Your task to perform on an android device: open app "Pandora - Music & Podcasts" Image 0: 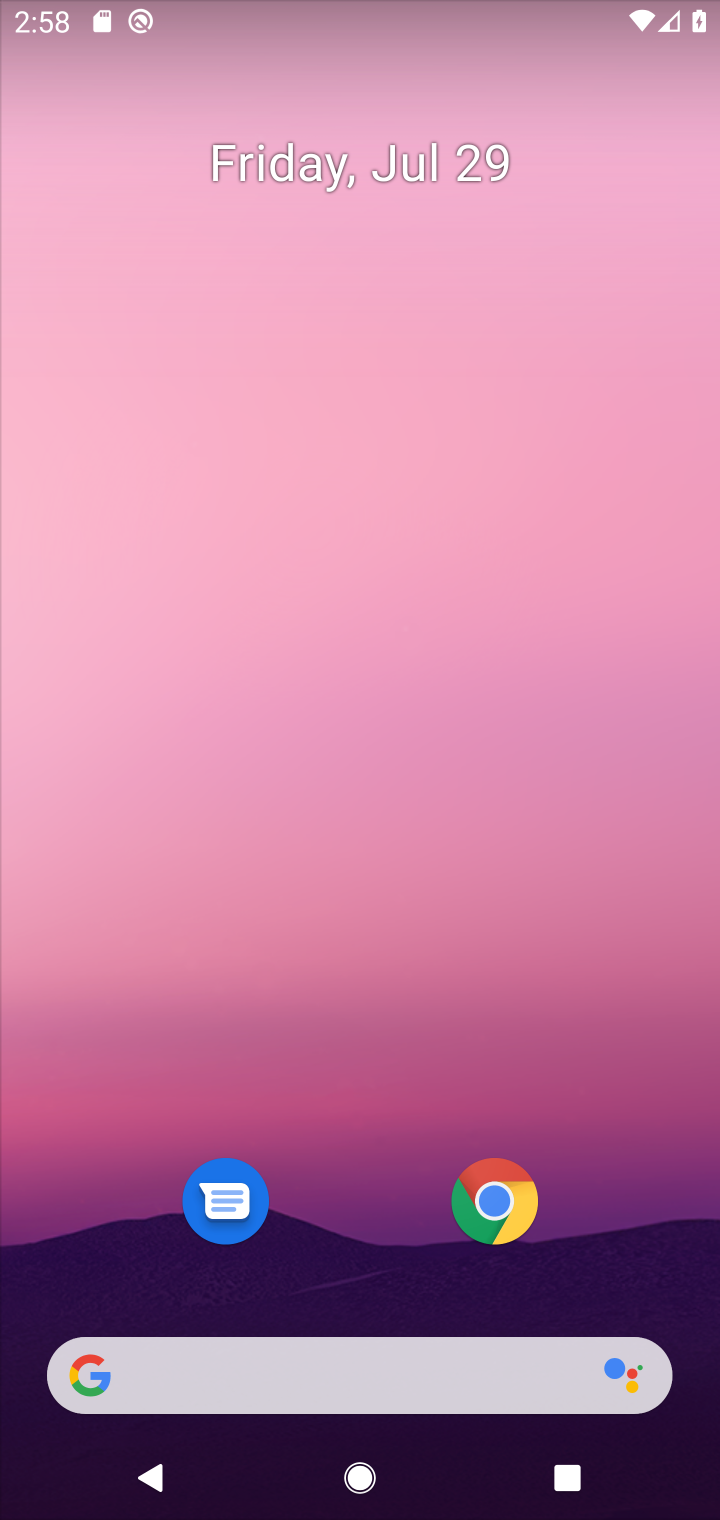
Step 0: drag from (435, 1284) to (337, 1066)
Your task to perform on an android device: open app "Pandora - Music & Podcasts" Image 1: 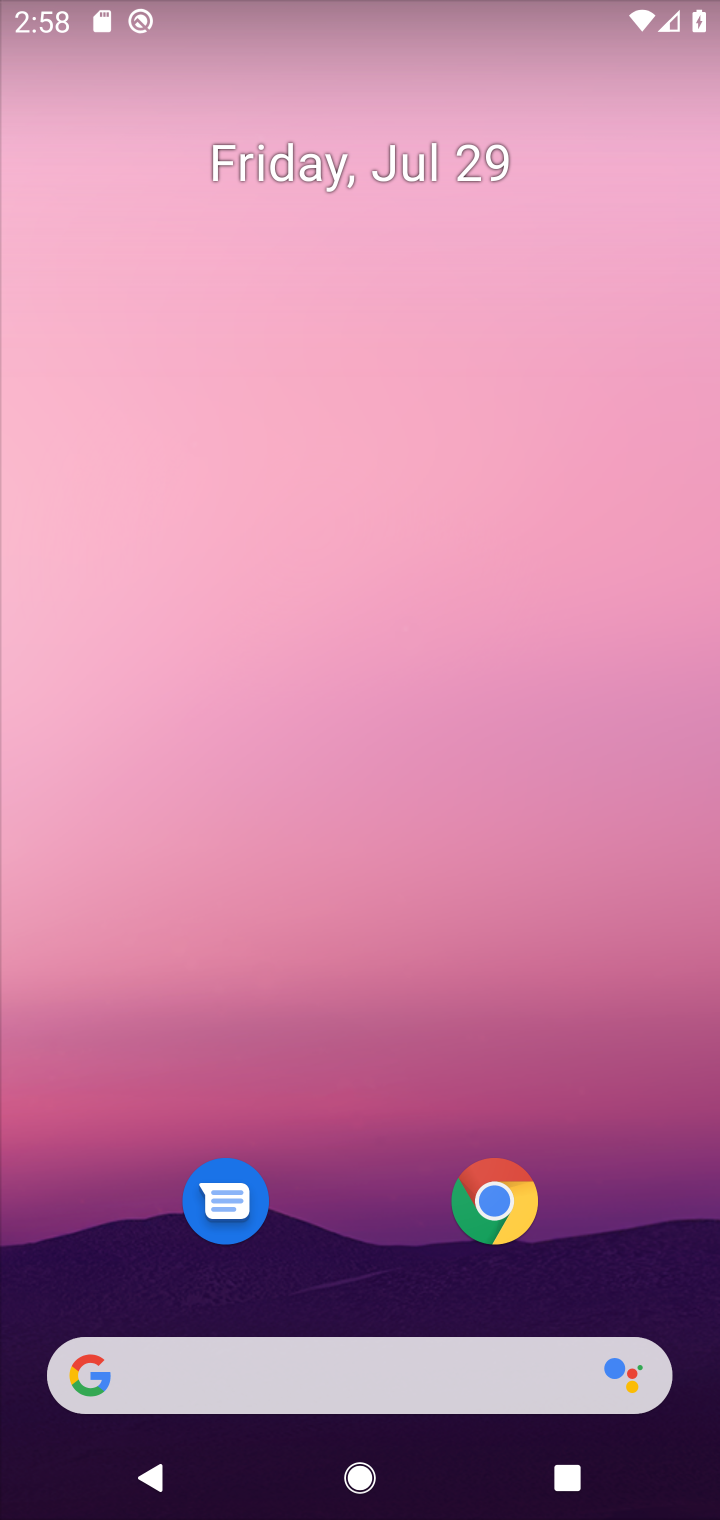
Step 1: drag from (404, 663) to (367, 246)
Your task to perform on an android device: open app "Pandora - Music & Podcasts" Image 2: 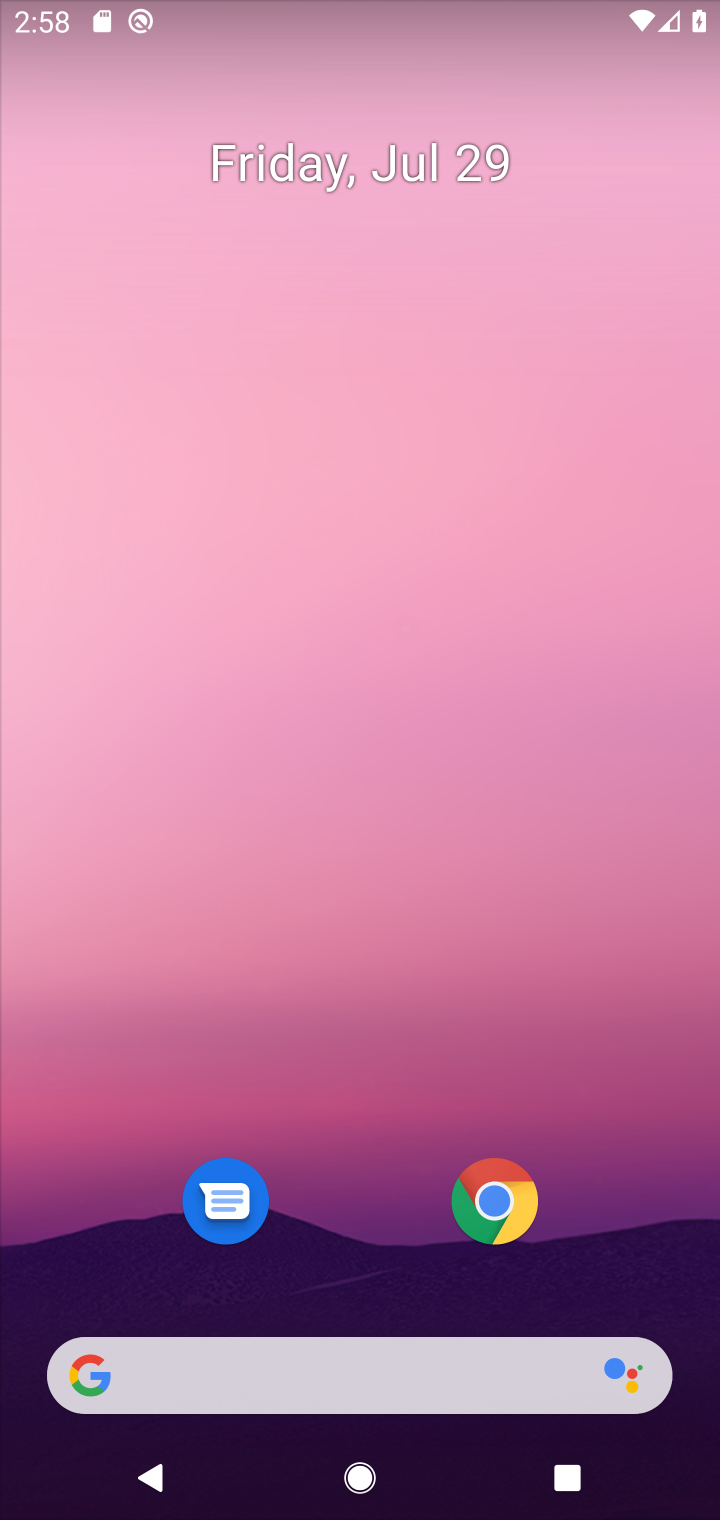
Step 2: drag from (553, 1082) to (335, 2)
Your task to perform on an android device: open app "Pandora - Music & Podcasts" Image 3: 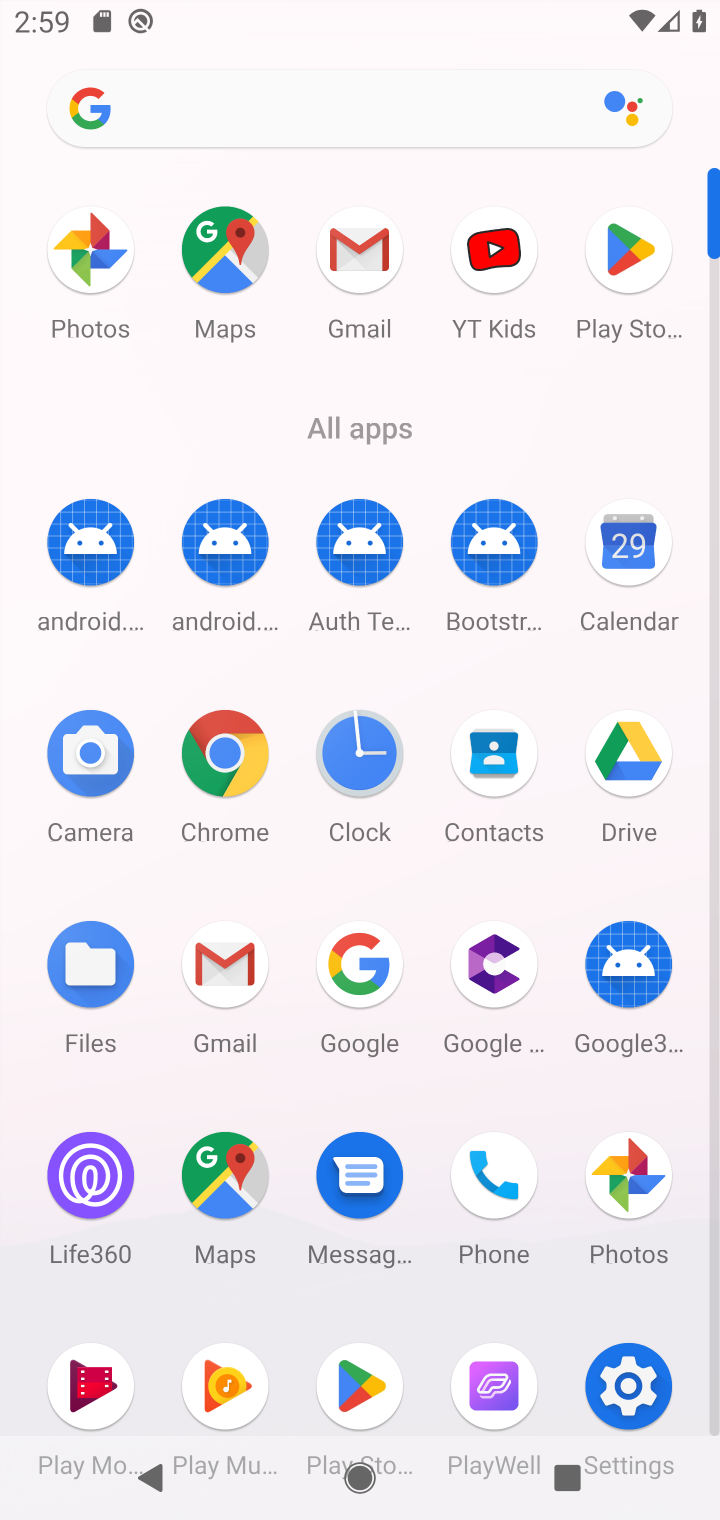
Step 3: click (650, 268)
Your task to perform on an android device: open app "Pandora - Music & Podcasts" Image 4: 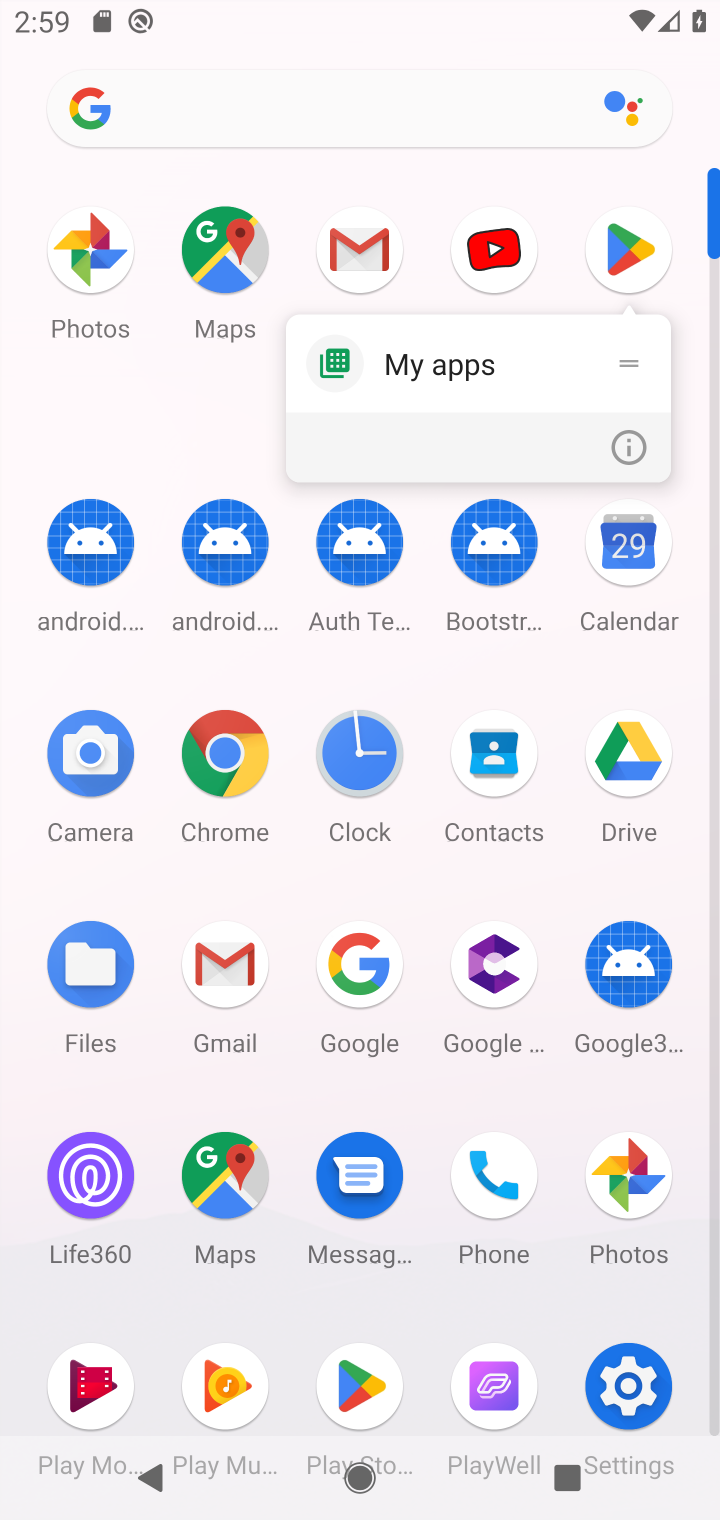
Step 4: click (649, 251)
Your task to perform on an android device: open app "Pandora - Music & Podcasts" Image 5: 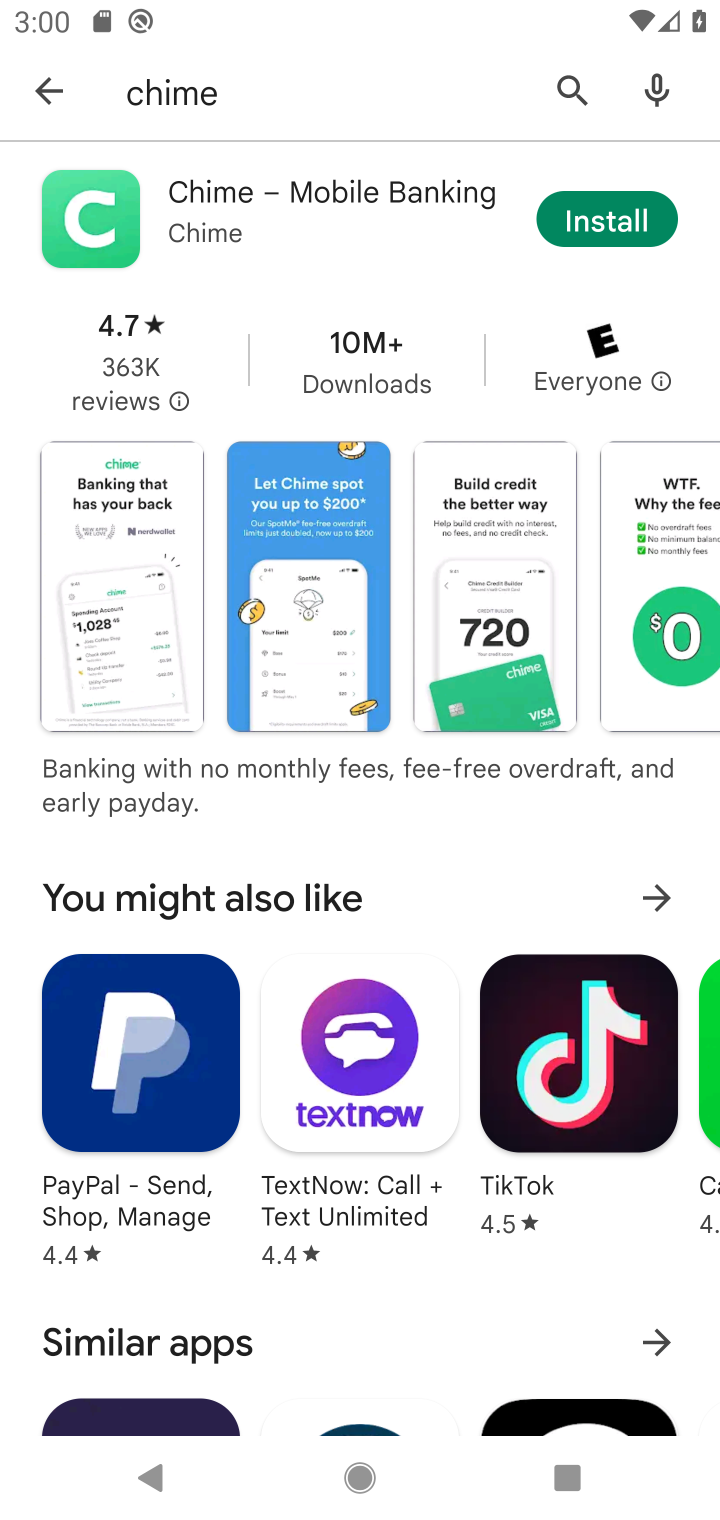
Step 5: click (587, 222)
Your task to perform on an android device: open app "Pandora - Music & Podcasts" Image 6: 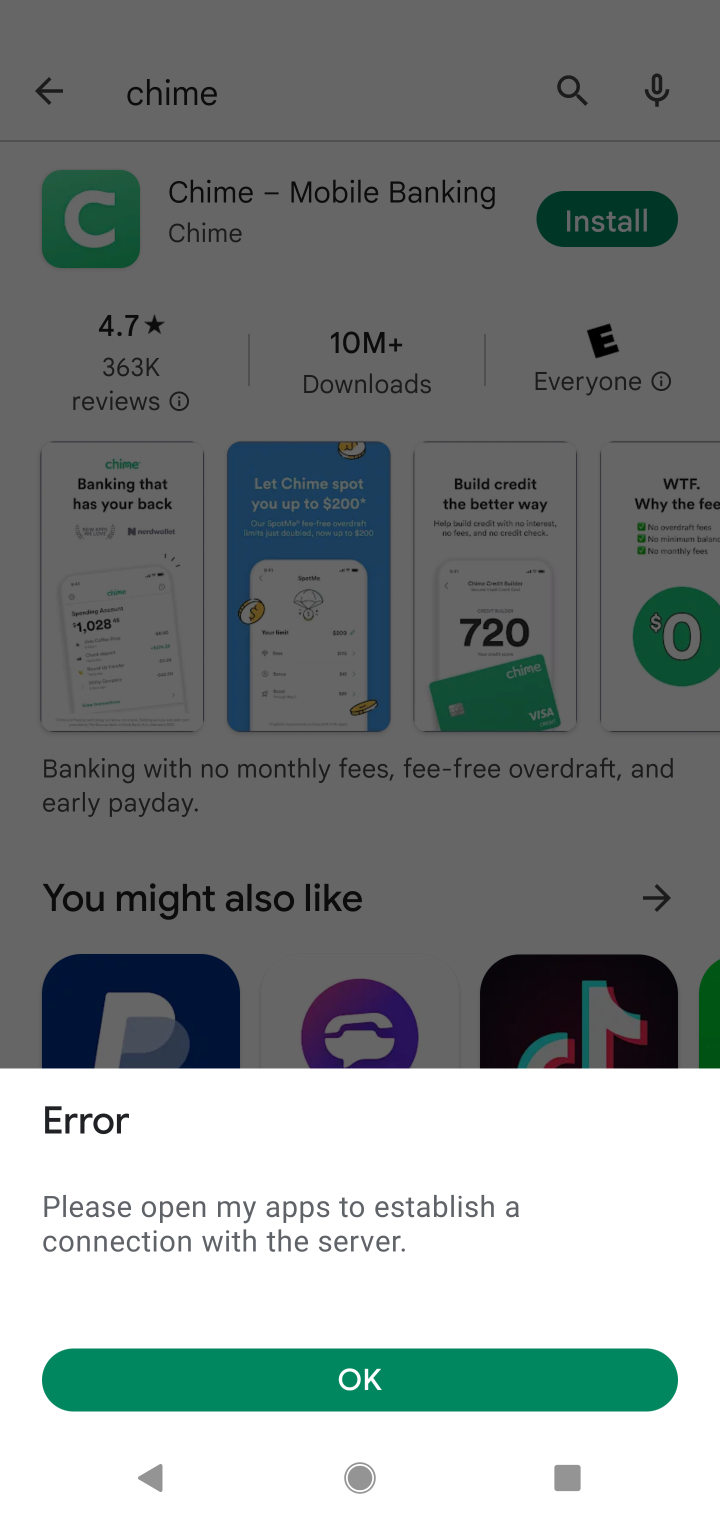
Step 6: click (517, 759)
Your task to perform on an android device: open app "Pandora - Music & Podcasts" Image 7: 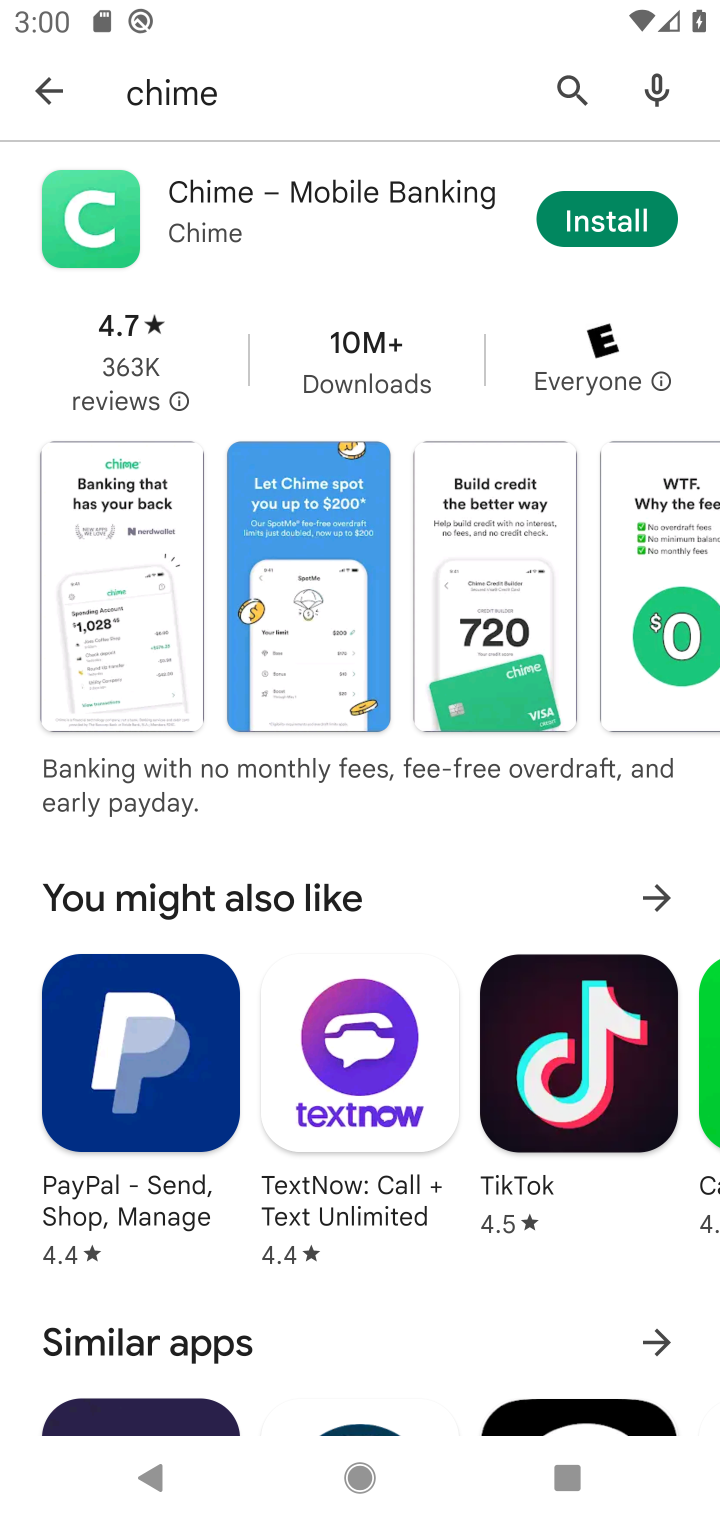
Step 7: click (569, 88)
Your task to perform on an android device: open app "Pandora - Music & Podcasts" Image 8: 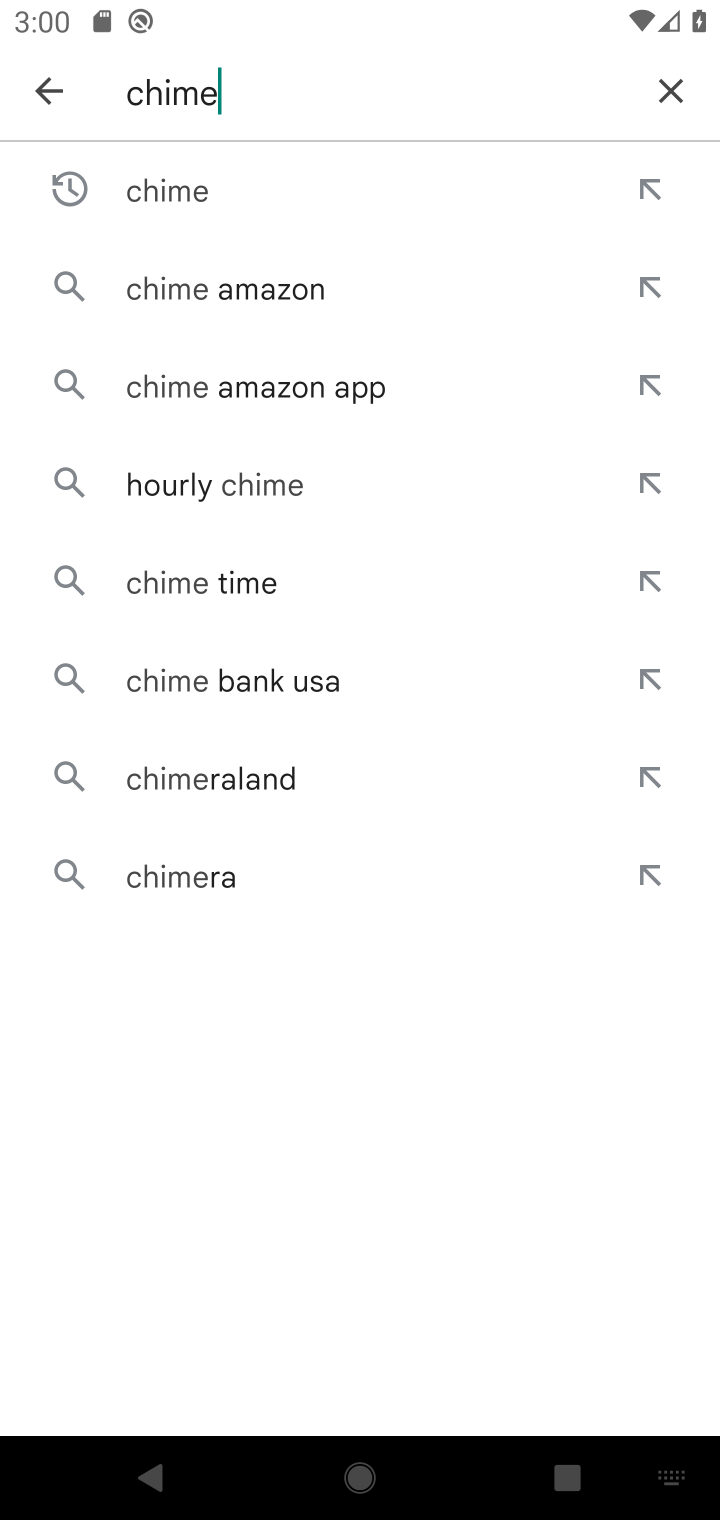
Step 8: click (681, 91)
Your task to perform on an android device: open app "Pandora - Music & Podcasts" Image 9: 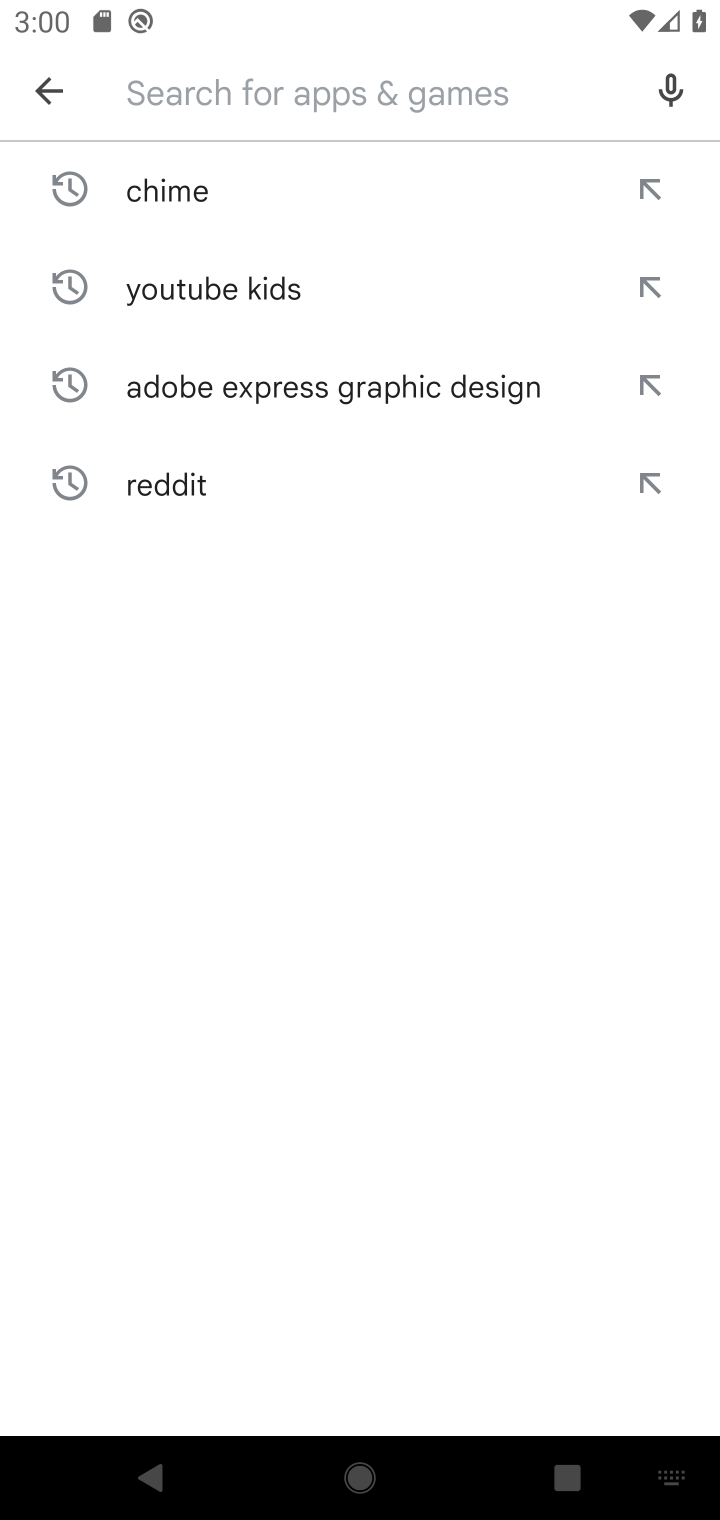
Step 9: type "Pandora"
Your task to perform on an android device: open app "Pandora - Music & Podcasts" Image 10: 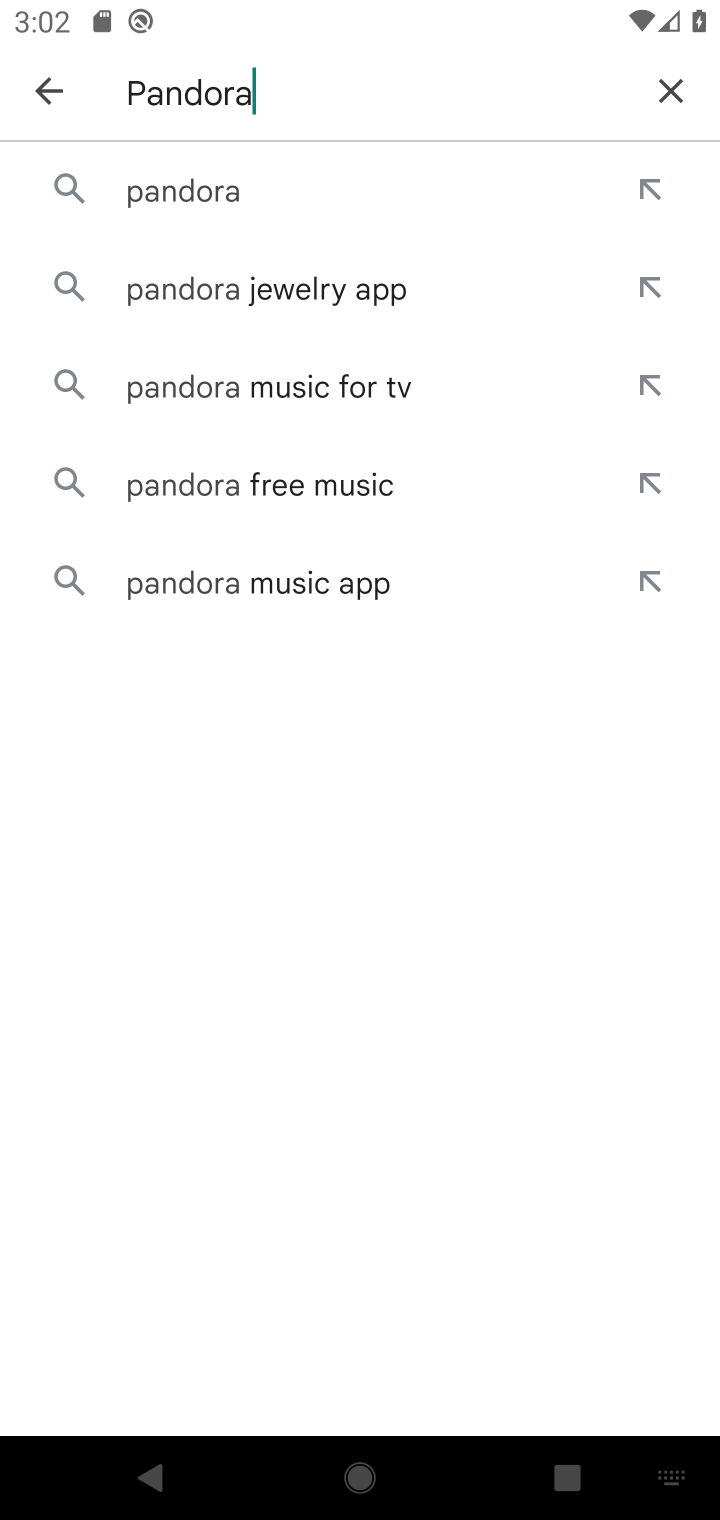
Step 10: click (128, 217)
Your task to perform on an android device: open app "Pandora - Music & Podcasts" Image 11: 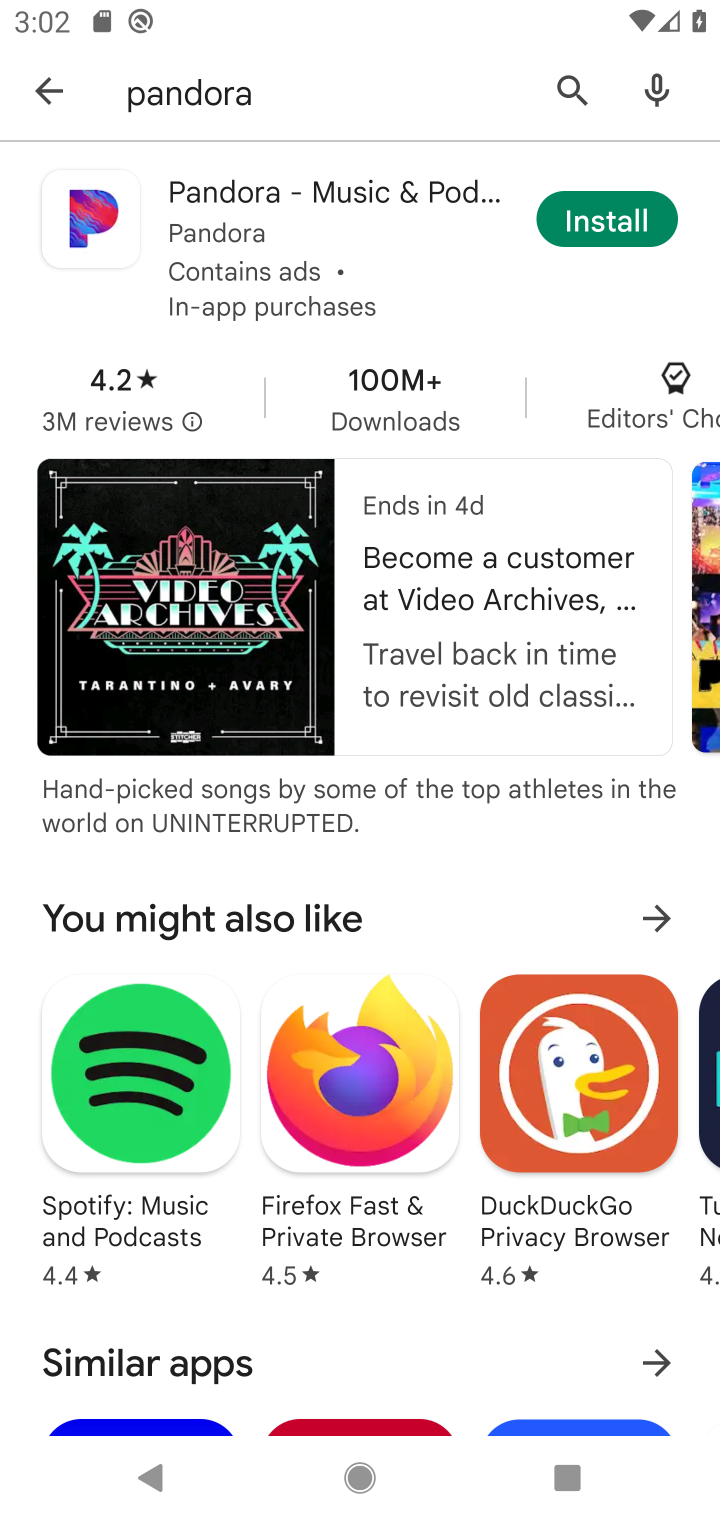
Step 11: click (626, 217)
Your task to perform on an android device: open app "Pandora - Music & Podcasts" Image 12: 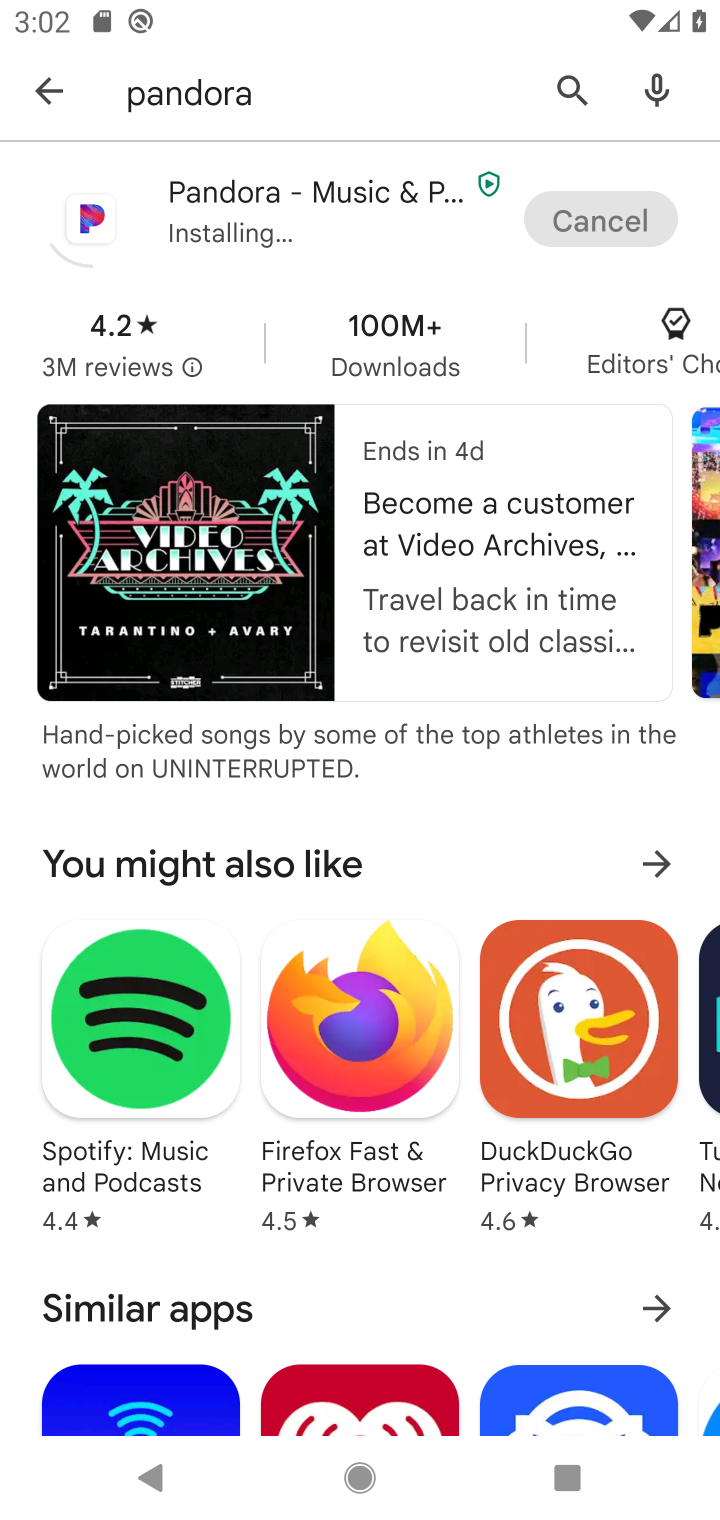
Step 12: click (212, 201)
Your task to perform on an android device: open app "Pandora - Music & Podcasts" Image 13: 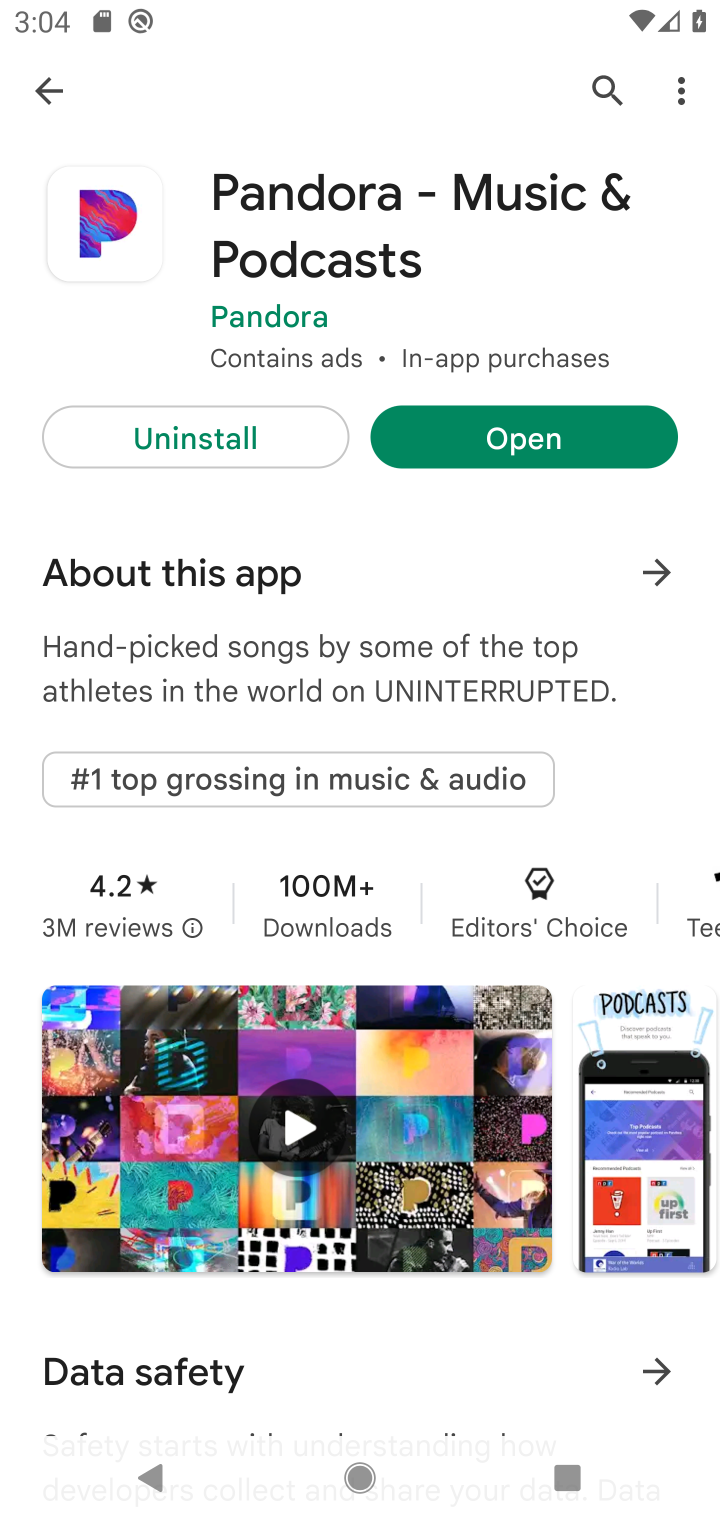
Step 13: click (554, 437)
Your task to perform on an android device: open app "Pandora - Music & Podcasts" Image 14: 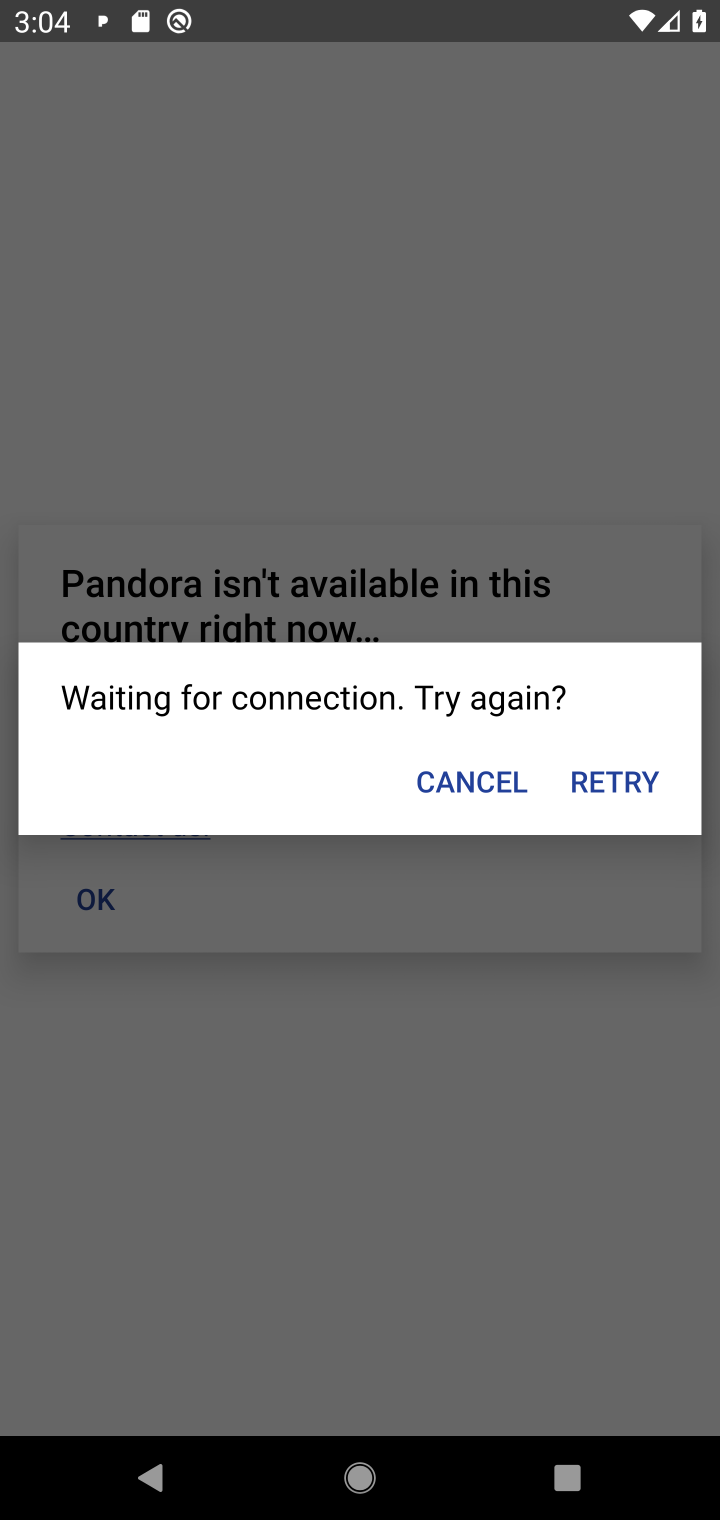
Step 14: task complete